Your task to perform on an android device: open app "Gboard" (install if not already installed) Image 0: 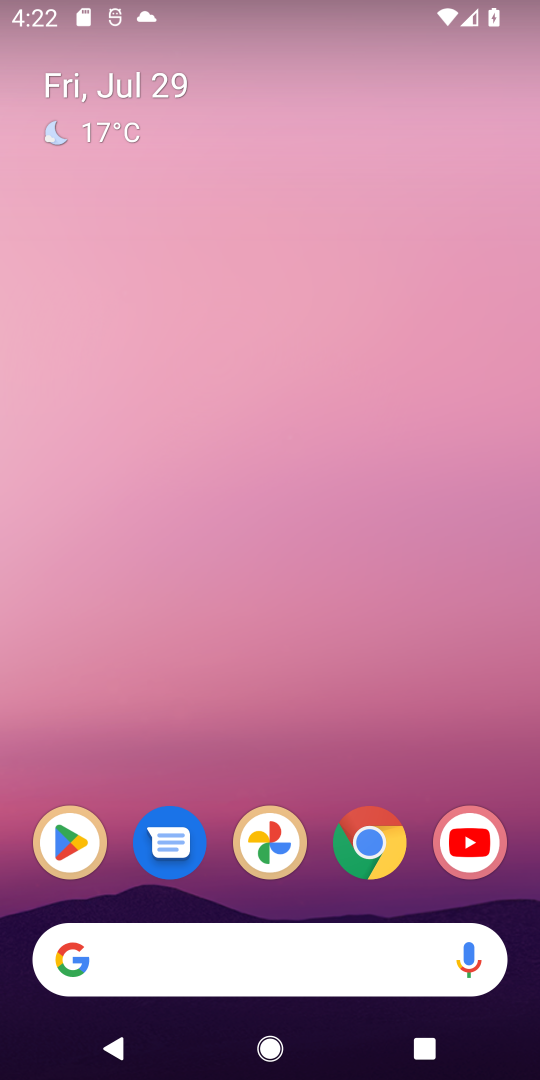
Step 0: click (69, 839)
Your task to perform on an android device: open app "Gboard" (install if not already installed) Image 1: 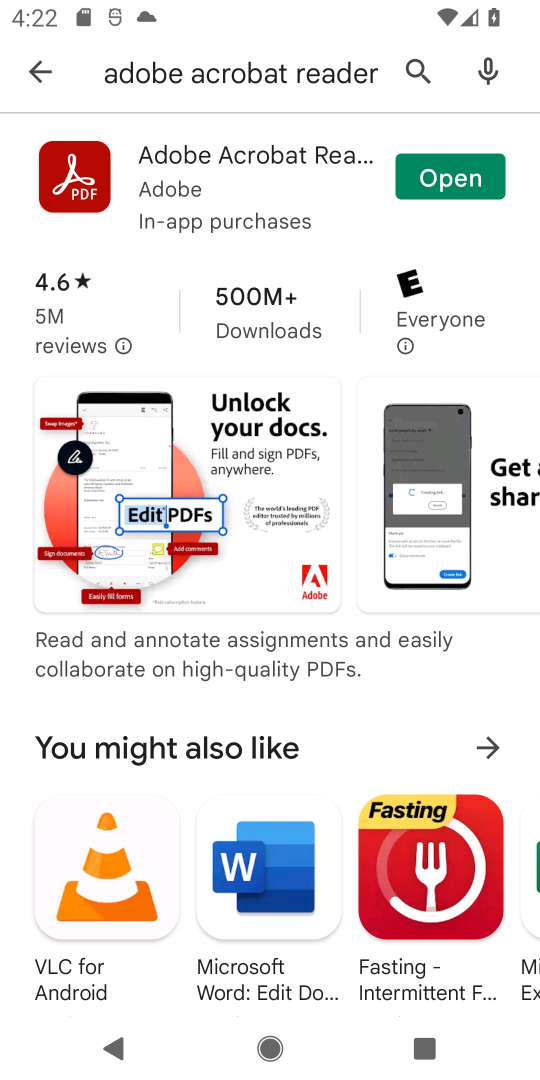
Step 1: click (422, 86)
Your task to perform on an android device: open app "Gboard" (install if not already installed) Image 2: 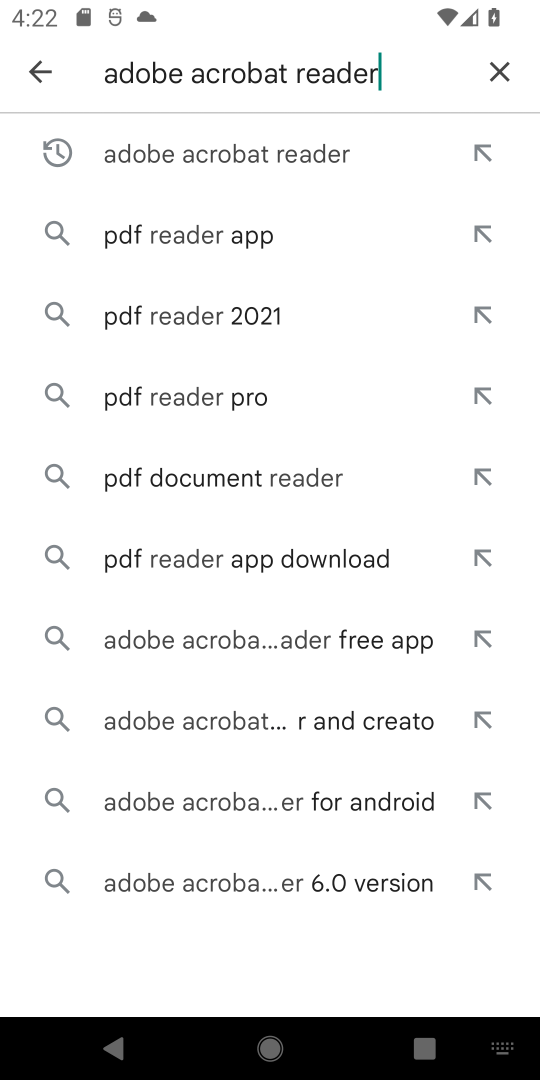
Step 2: click (485, 63)
Your task to perform on an android device: open app "Gboard" (install if not already installed) Image 3: 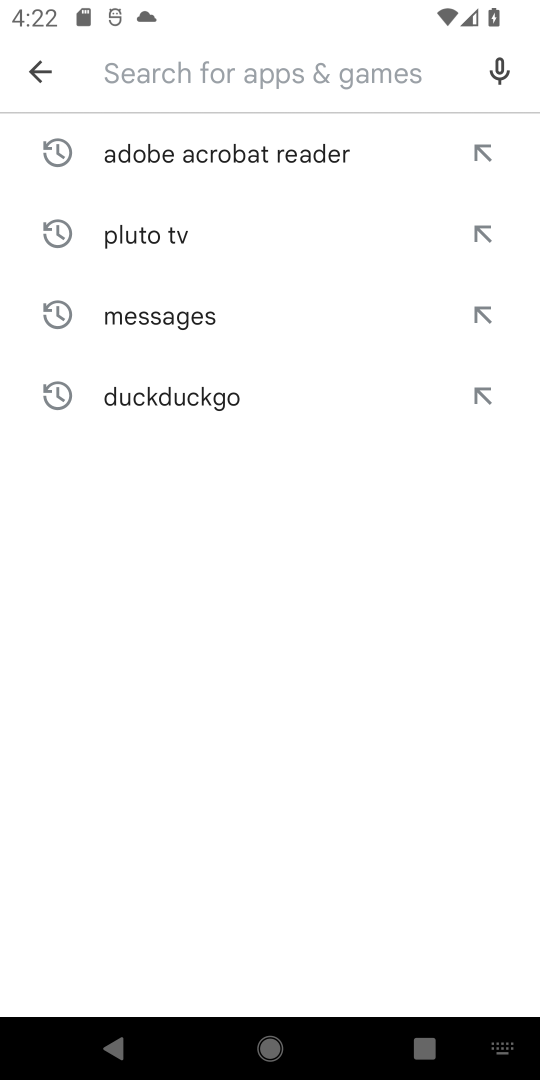
Step 3: click (173, 85)
Your task to perform on an android device: open app "Gboard" (install if not already installed) Image 4: 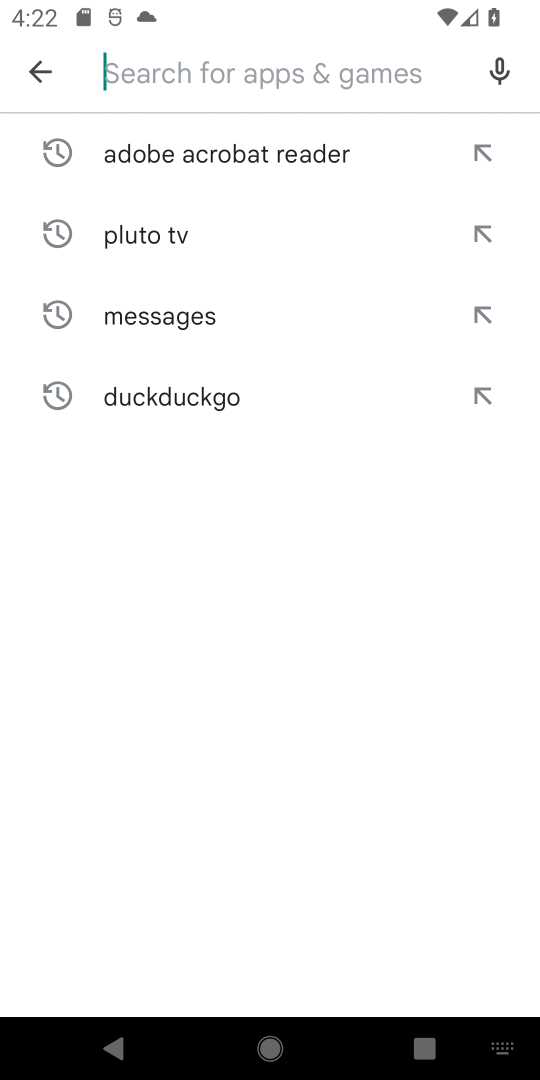
Step 4: type "gboard"
Your task to perform on an android device: open app "Gboard" (install if not already installed) Image 5: 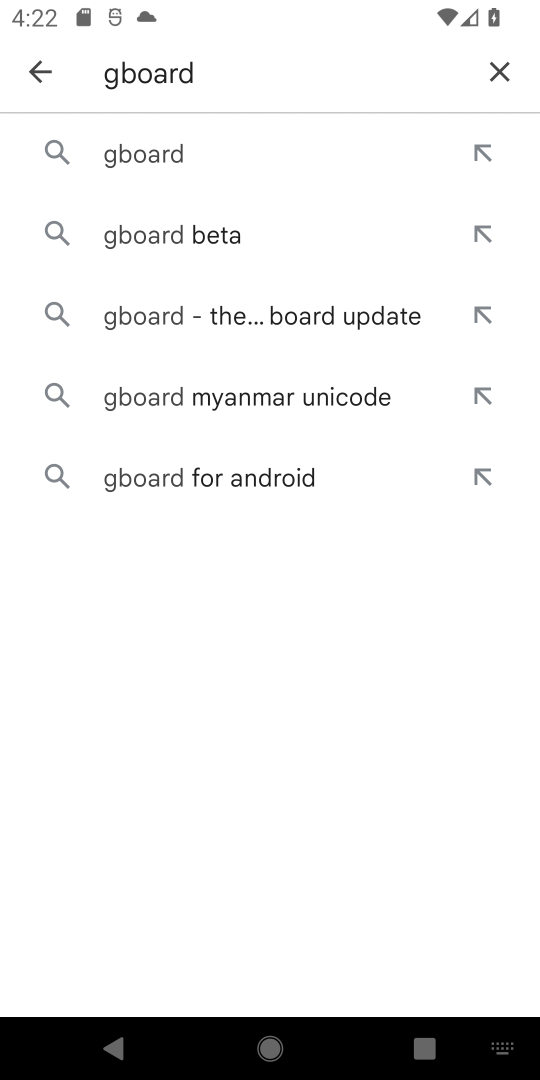
Step 5: click (172, 152)
Your task to perform on an android device: open app "Gboard" (install if not already installed) Image 6: 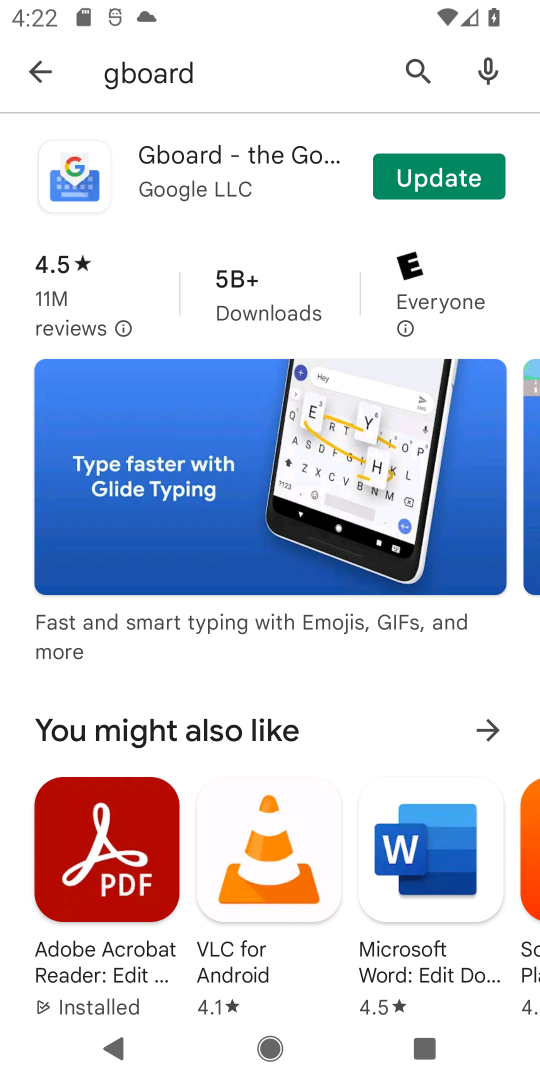
Step 6: click (187, 158)
Your task to perform on an android device: open app "Gboard" (install if not already installed) Image 7: 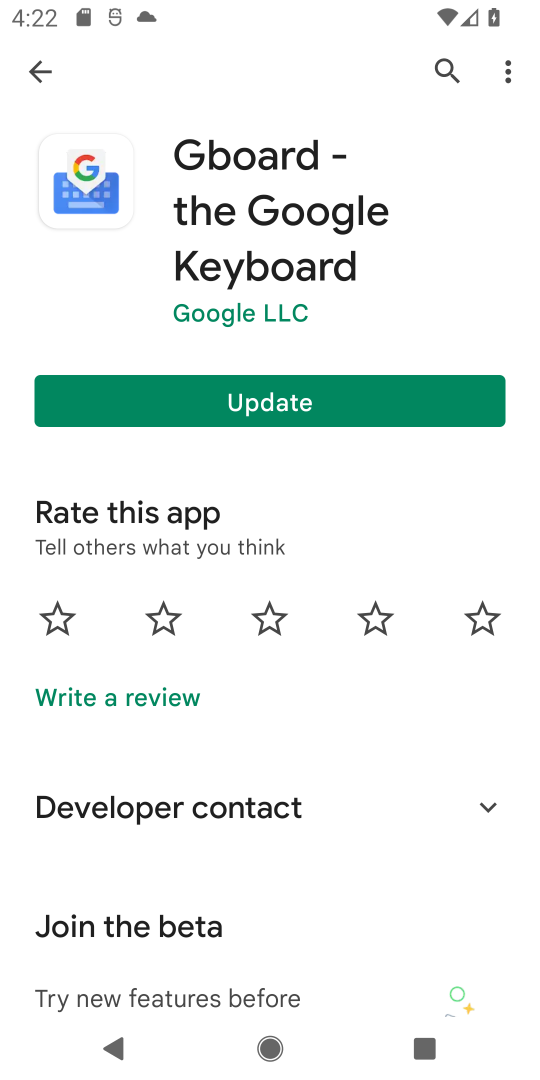
Step 7: click (238, 182)
Your task to perform on an android device: open app "Gboard" (install if not already installed) Image 8: 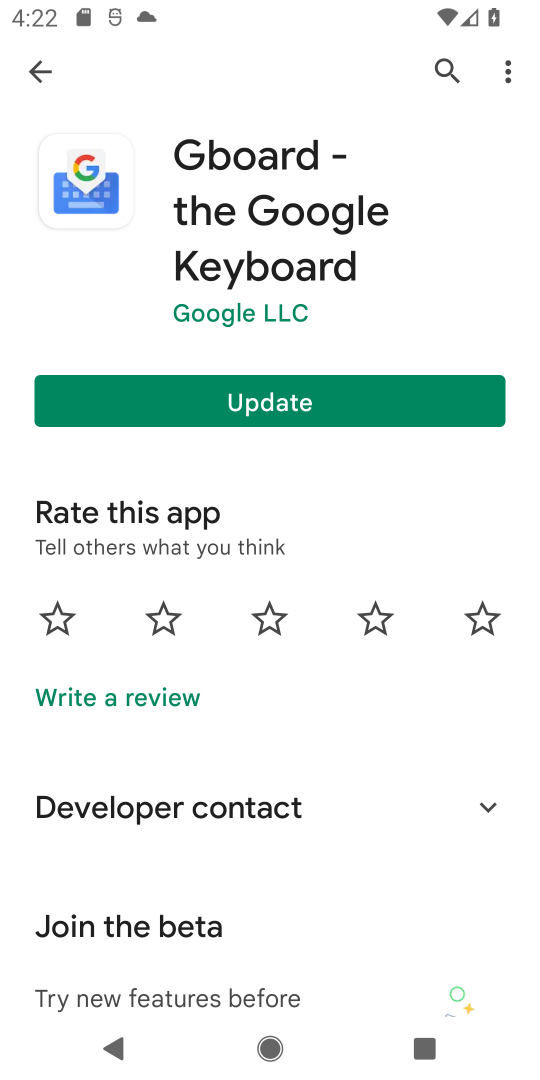
Step 8: task complete